Your task to perform on an android device: install app "Instagram" Image 0: 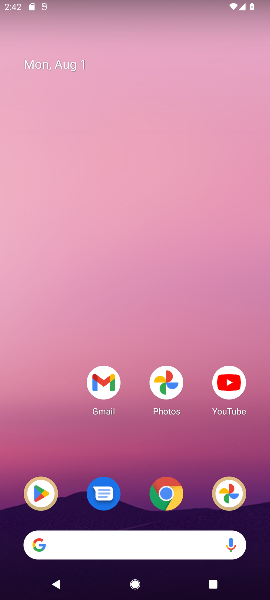
Step 0: click (45, 500)
Your task to perform on an android device: install app "Instagram" Image 1: 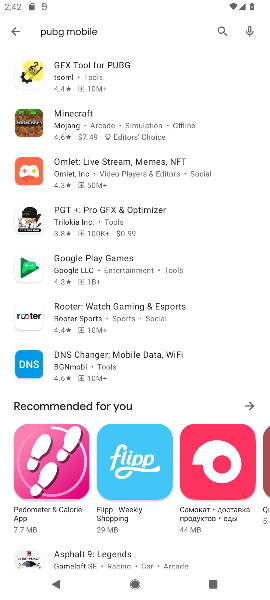
Step 1: click (232, 30)
Your task to perform on an android device: install app "Instagram" Image 2: 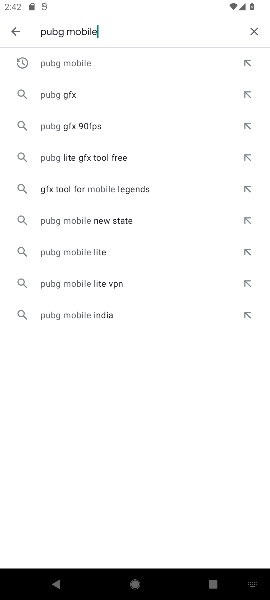
Step 2: click (254, 27)
Your task to perform on an android device: install app "Instagram" Image 3: 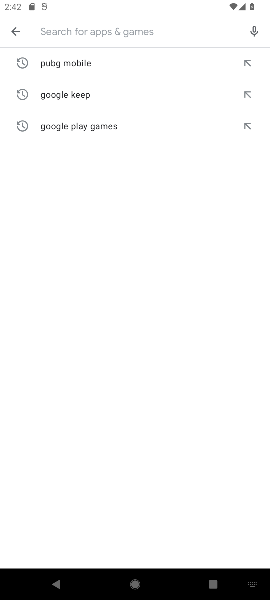
Step 3: type "instagram"
Your task to perform on an android device: install app "Instagram" Image 4: 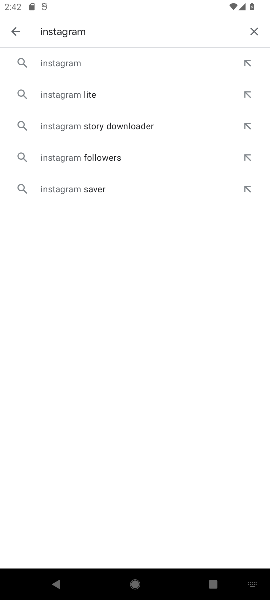
Step 4: click (70, 54)
Your task to perform on an android device: install app "Instagram" Image 5: 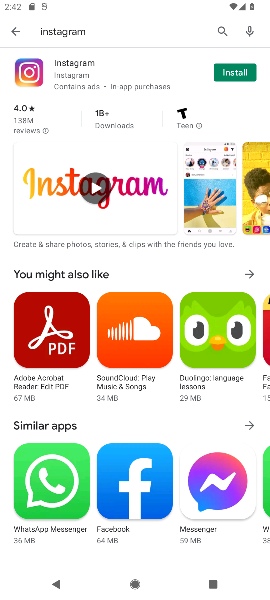
Step 5: click (80, 54)
Your task to perform on an android device: install app "Instagram" Image 6: 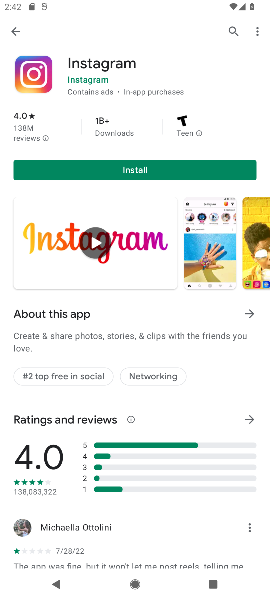
Step 6: click (107, 176)
Your task to perform on an android device: install app "Instagram" Image 7: 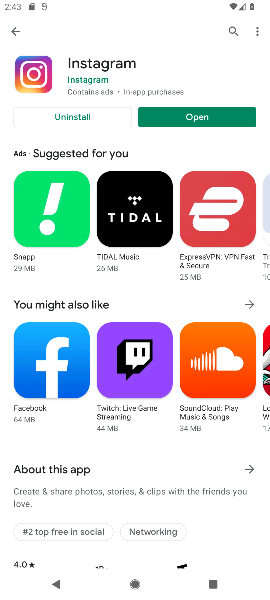
Step 7: task complete